Your task to perform on an android device: Go to battery settings Image 0: 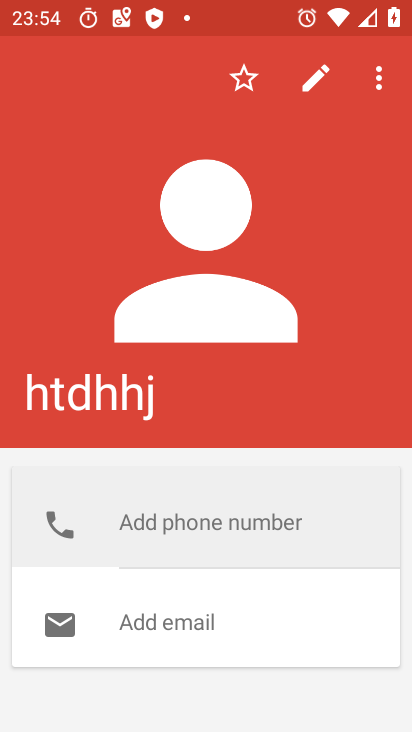
Step 0: press home button
Your task to perform on an android device: Go to battery settings Image 1: 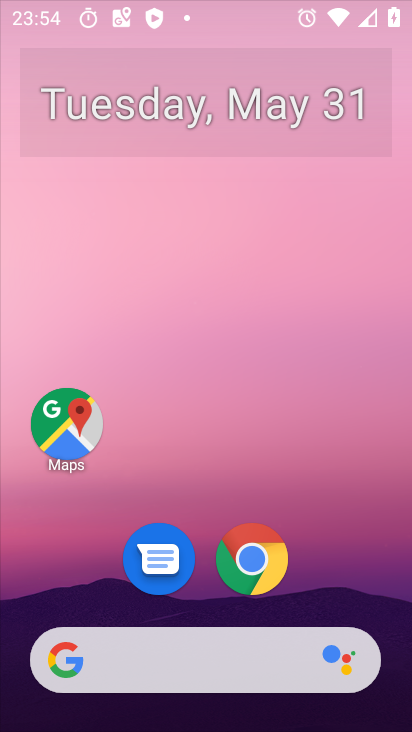
Step 1: drag from (319, 575) to (324, 97)
Your task to perform on an android device: Go to battery settings Image 2: 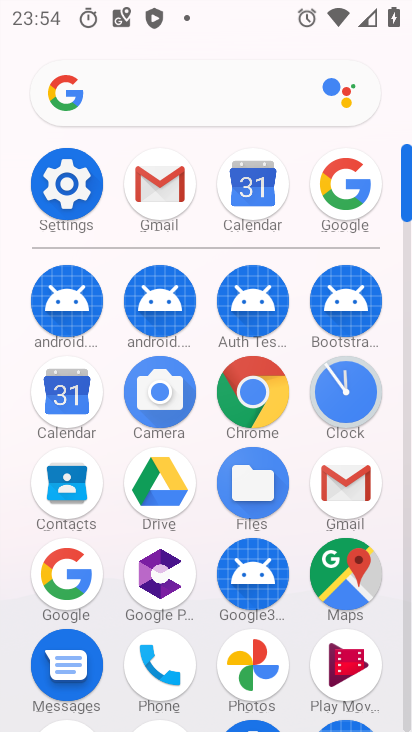
Step 2: click (64, 190)
Your task to perform on an android device: Go to battery settings Image 3: 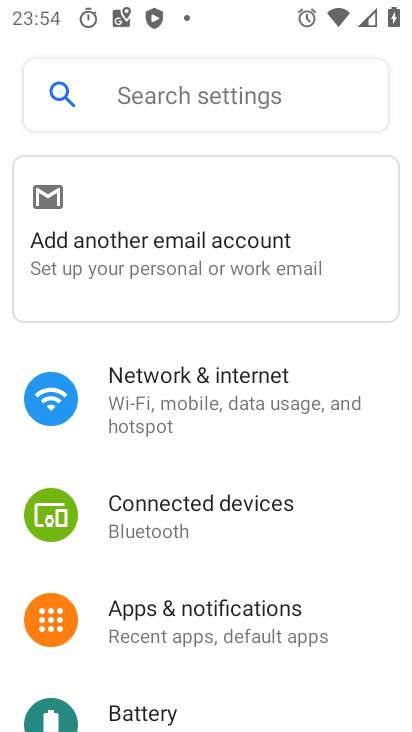
Step 3: click (276, 695)
Your task to perform on an android device: Go to battery settings Image 4: 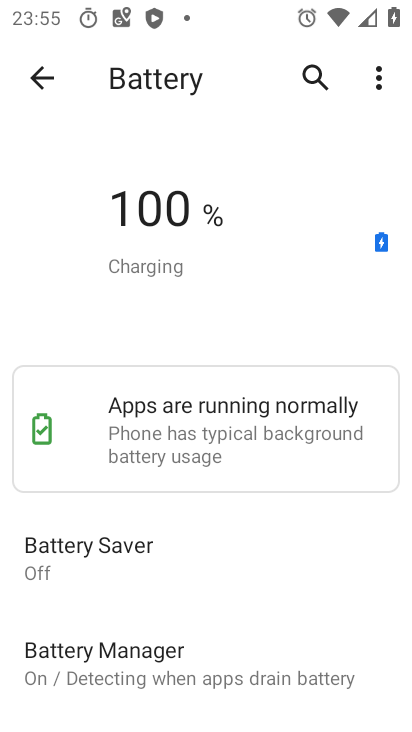
Step 4: task complete